Your task to perform on an android device: Clear the cart on walmart. Search for bose soundlink mini on walmart, select the first entry, and add it to the cart. Image 0: 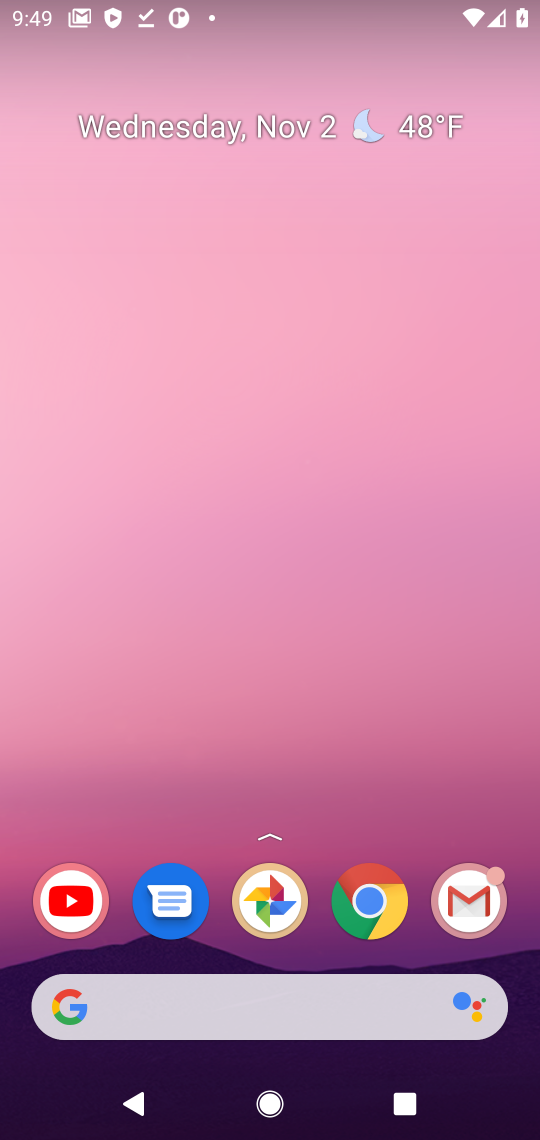
Step 0: click (383, 900)
Your task to perform on an android device: Clear the cart on walmart. Search for bose soundlink mini on walmart, select the first entry, and add it to the cart. Image 1: 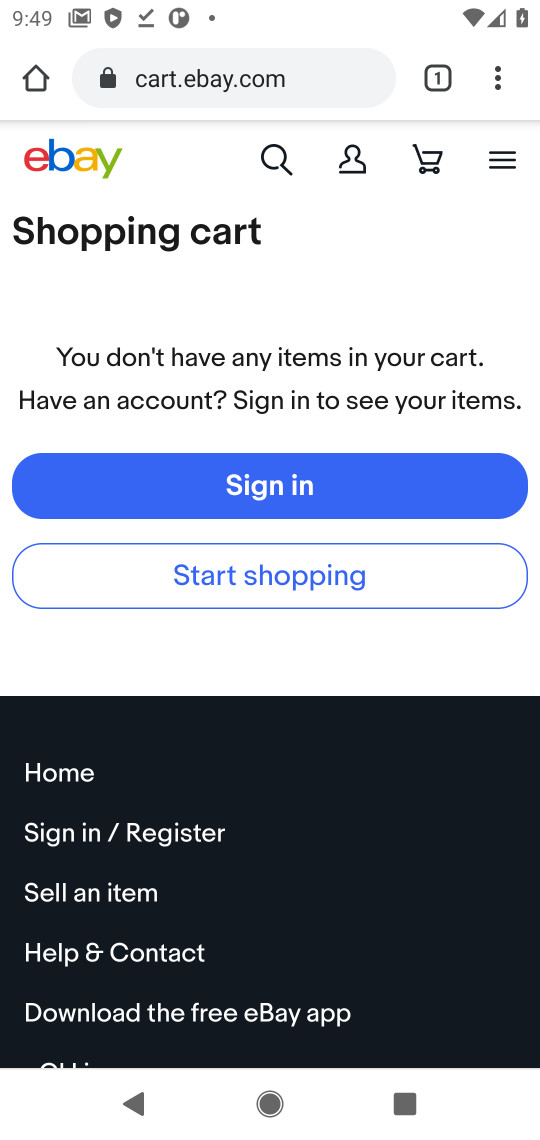
Step 1: click (255, 87)
Your task to perform on an android device: Clear the cart on walmart. Search for bose soundlink mini on walmart, select the first entry, and add it to the cart. Image 2: 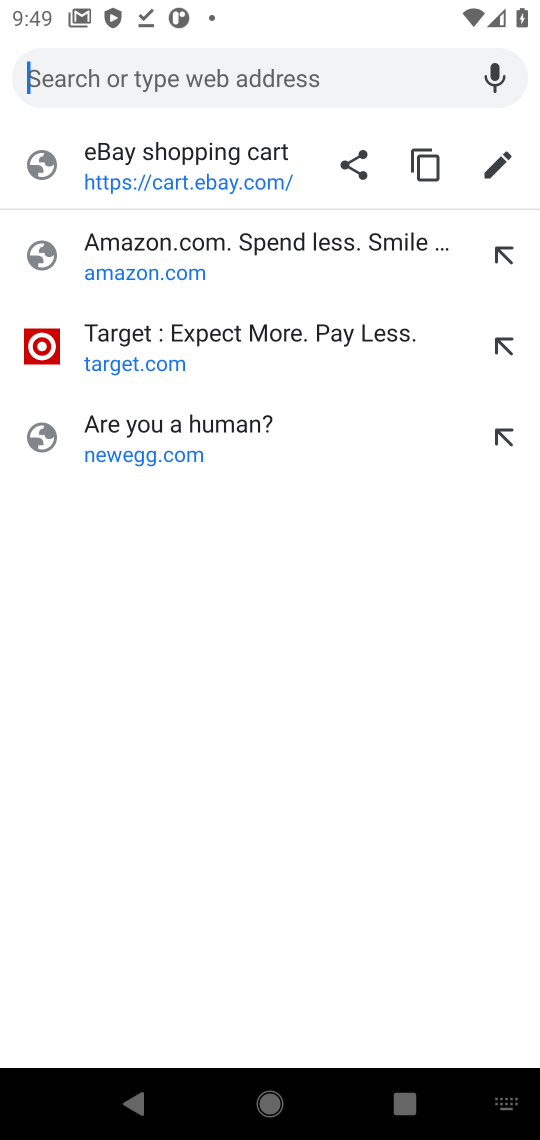
Step 2: type "walmart"
Your task to perform on an android device: Clear the cart on walmart. Search for bose soundlink mini on walmart, select the first entry, and add it to the cart. Image 3: 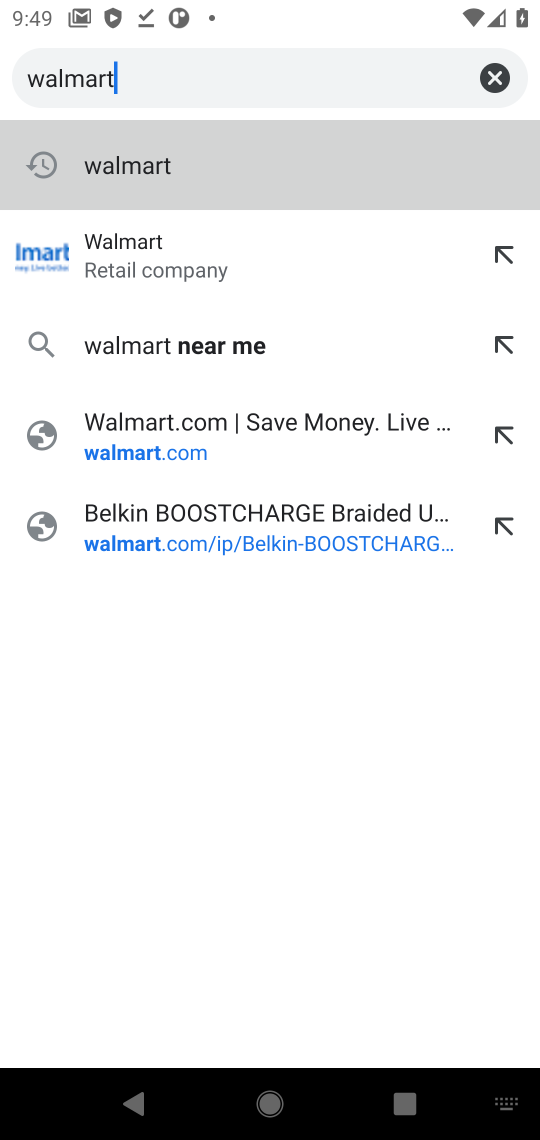
Step 3: click (175, 170)
Your task to perform on an android device: Clear the cart on walmart. Search for bose soundlink mini on walmart, select the first entry, and add it to the cart. Image 4: 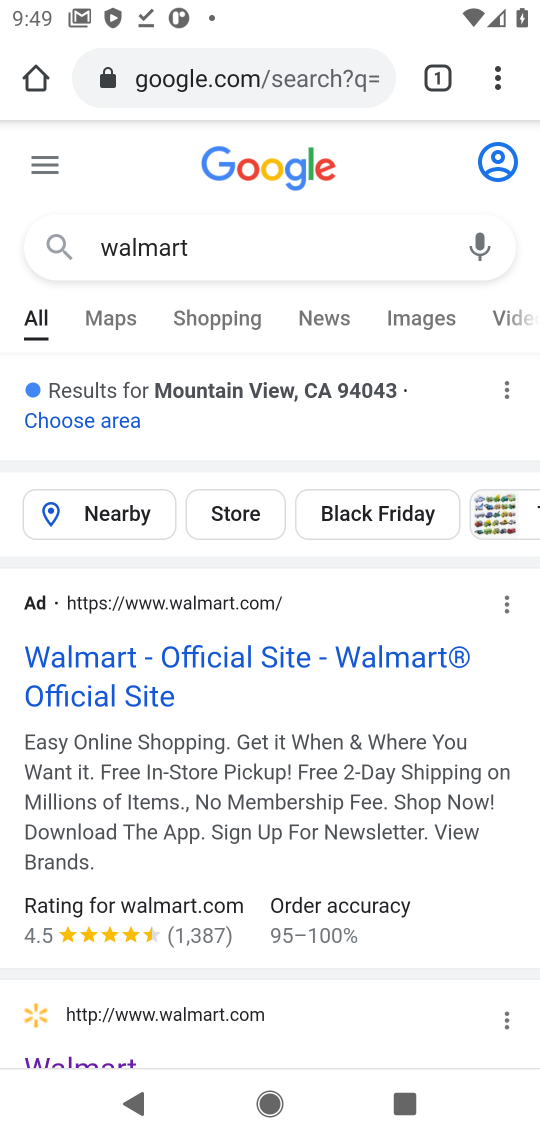
Step 4: drag from (454, 956) to (401, 553)
Your task to perform on an android device: Clear the cart on walmart. Search for bose soundlink mini on walmart, select the first entry, and add it to the cart. Image 5: 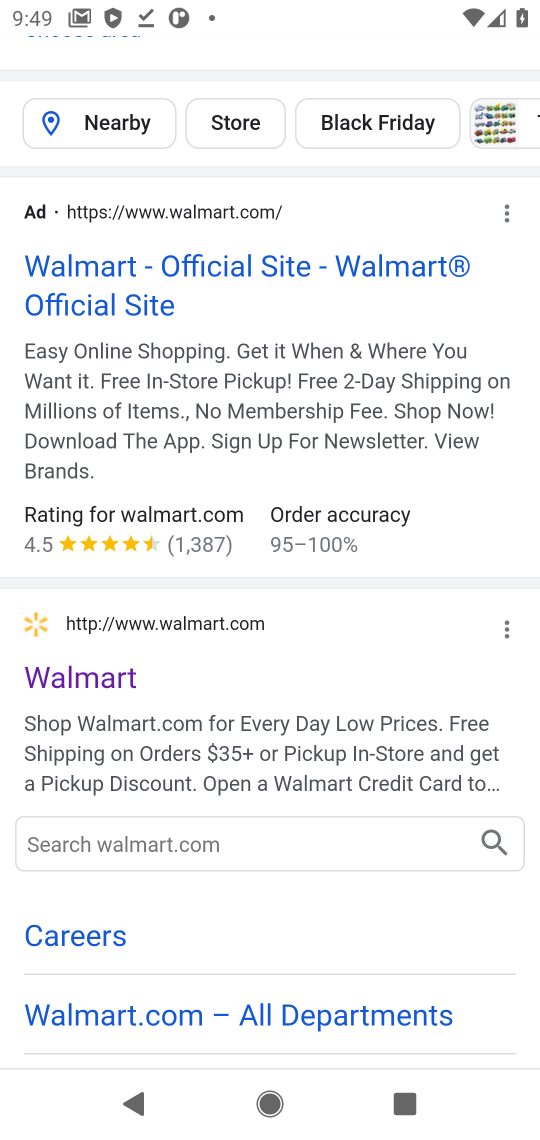
Step 5: click (83, 673)
Your task to perform on an android device: Clear the cart on walmart. Search for bose soundlink mini on walmart, select the first entry, and add it to the cart. Image 6: 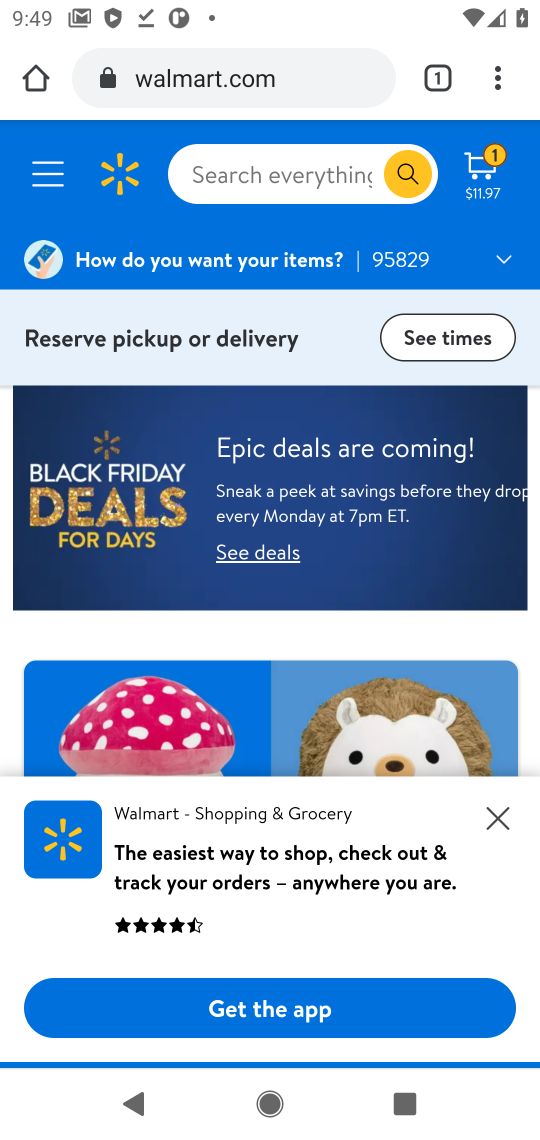
Step 6: click (500, 817)
Your task to perform on an android device: Clear the cart on walmart. Search for bose soundlink mini on walmart, select the first entry, and add it to the cart. Image 7: 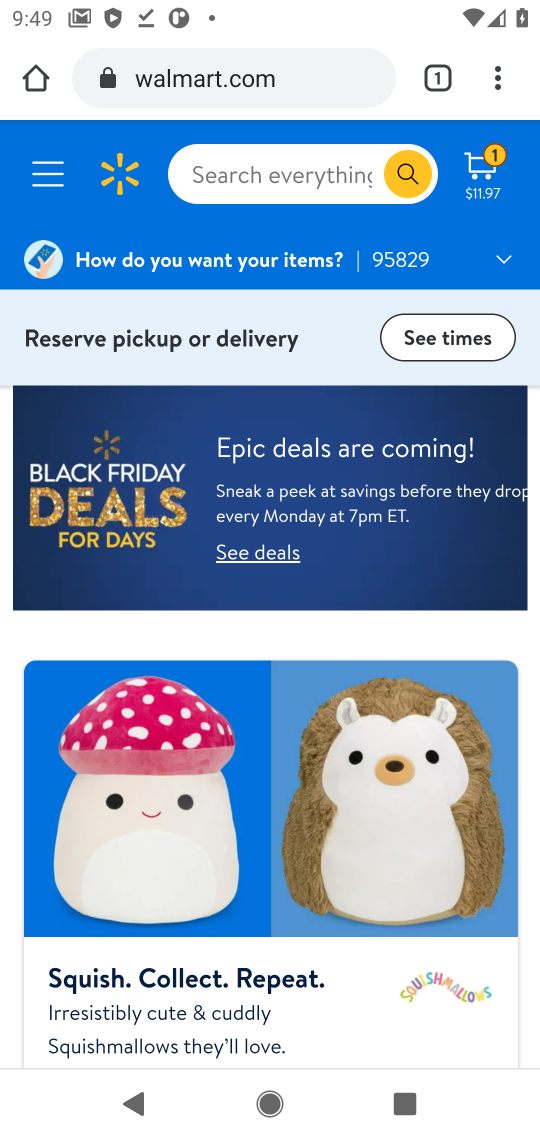
Step 7: drag from (360, 973) to (343, 624)
Your task to perform on an android device: Clear the cart on walmart. Search for bose soundlink mini on walmart, select the first entry, and add it to the cart. Image 8: 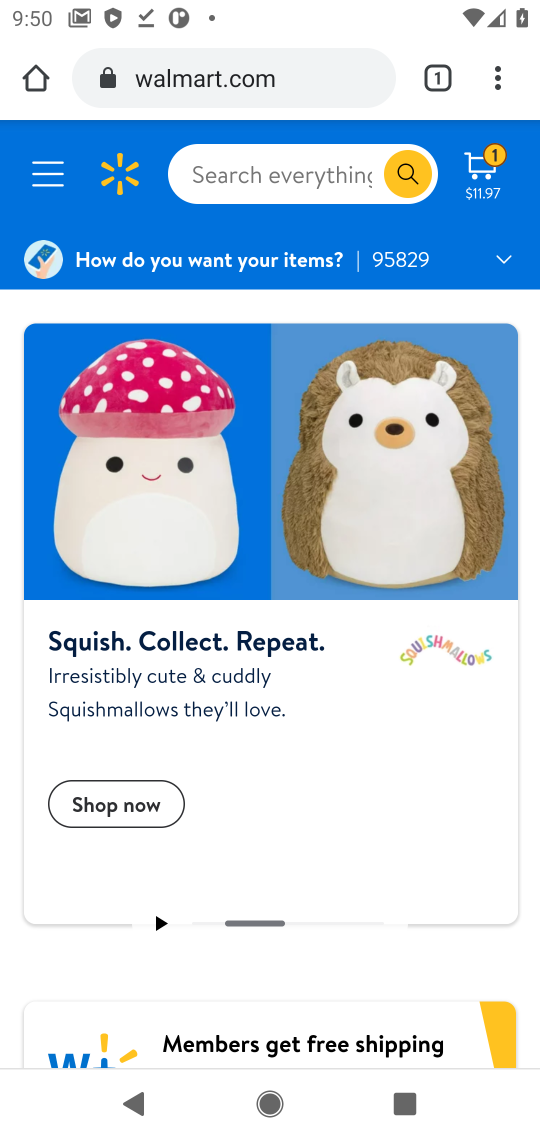
Step 8: click (483, 186)
Your task to perform on an android device: Clear the cart on walmart. Search for bose soundlink mini on walmart, select the first entry, and add it to the cart. Image 9: 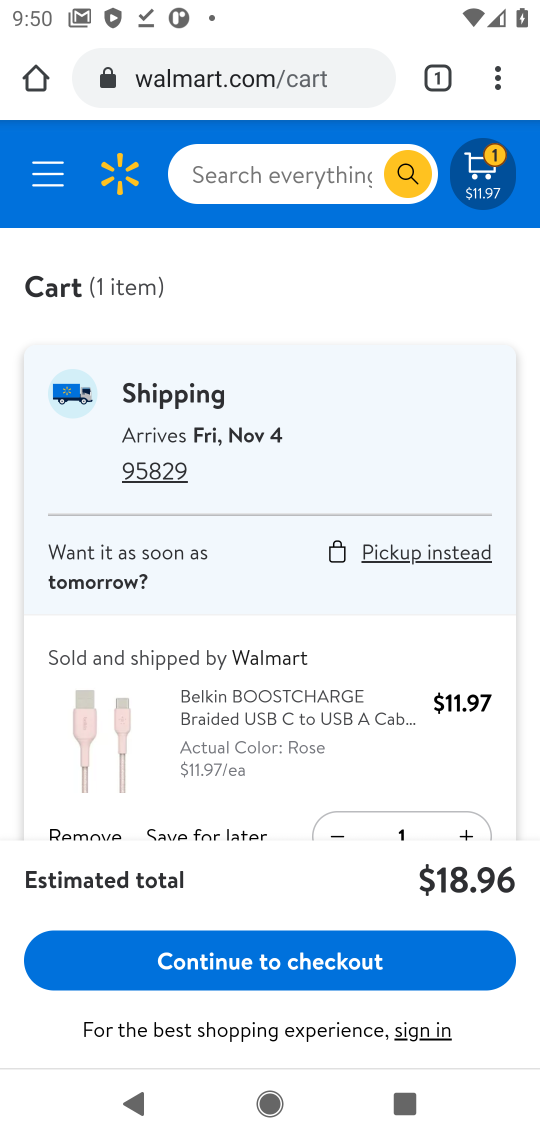
Step 9: drag from (410, 659) to (399, 360)
Your task to perform on an android device: Clear the cart on walmart. Search for bose soundlink mini on walmart, select the first entry, and add it to the cart. Image 10: 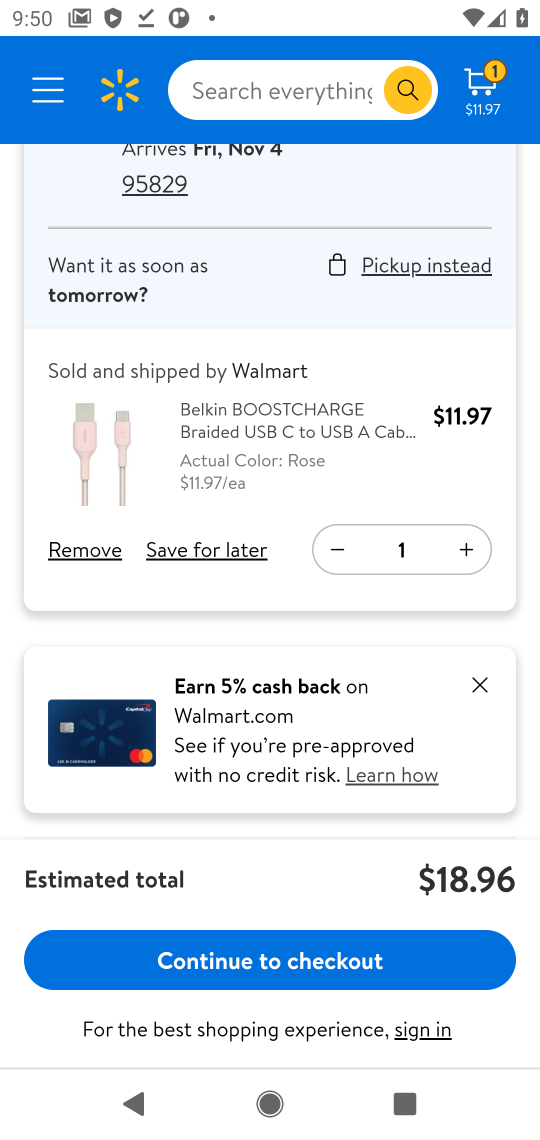
Step 10: click (74, 550)
Your task to perform on an android device: Clear the cart on walmart. Search for bose soundlink mini on walmart, select the first entry, and add it to the cart. Image 11: 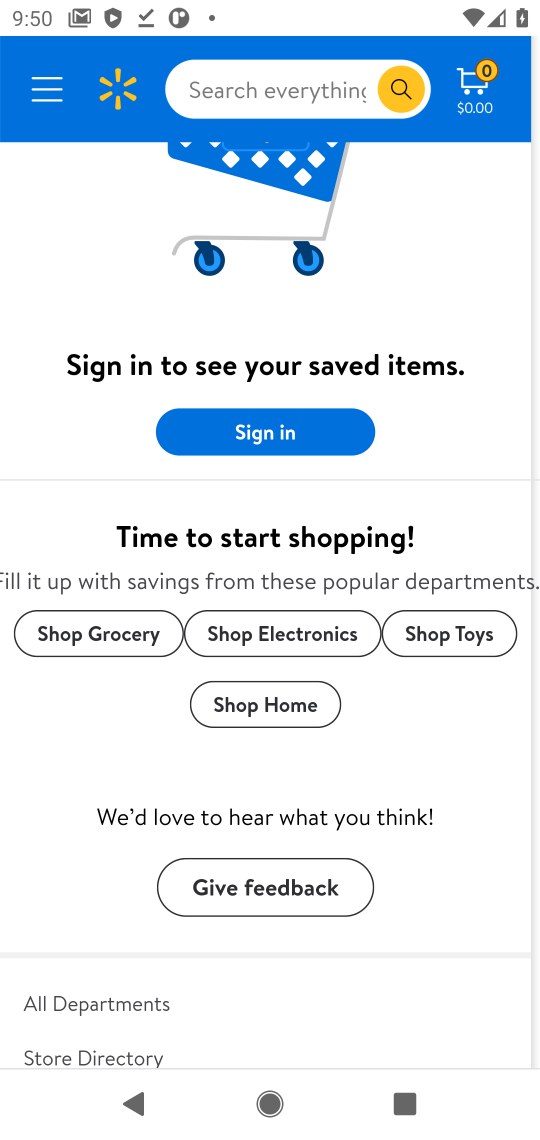
Step 11: click (313, 85)
Your task to perform on an android device: Clear the cart on walmart. Search for bose soundlink mini on walmart, select the first entry, and add it to the cart. Image 12: 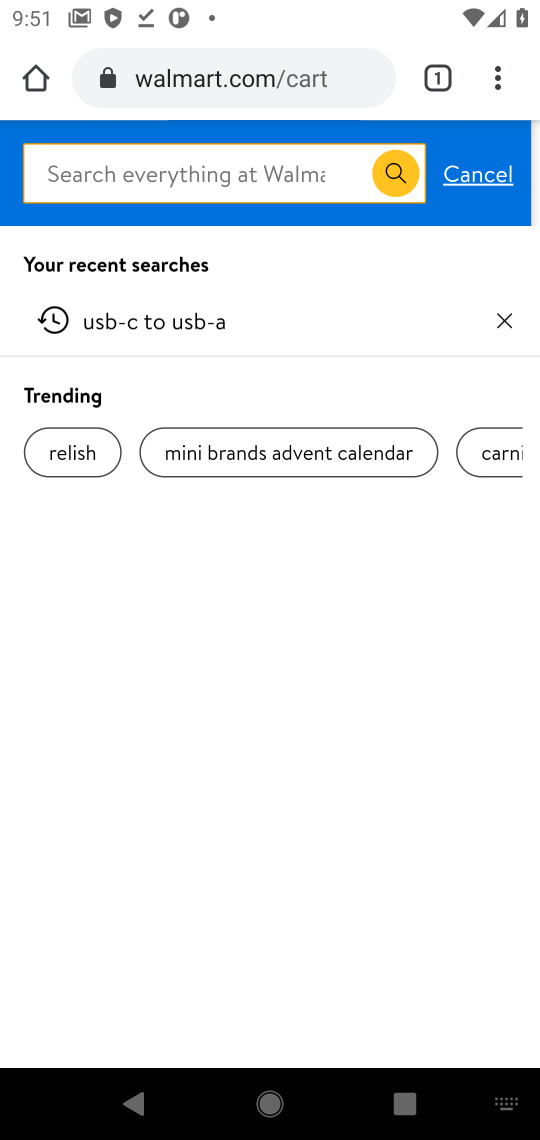
Step 12: type "bose soundlink mini"
Your task to perform on an android device: Clear the cart on walmart. Search for bose soundlink mini on walmart, select the first entry, and add it to the cart. Image 13: 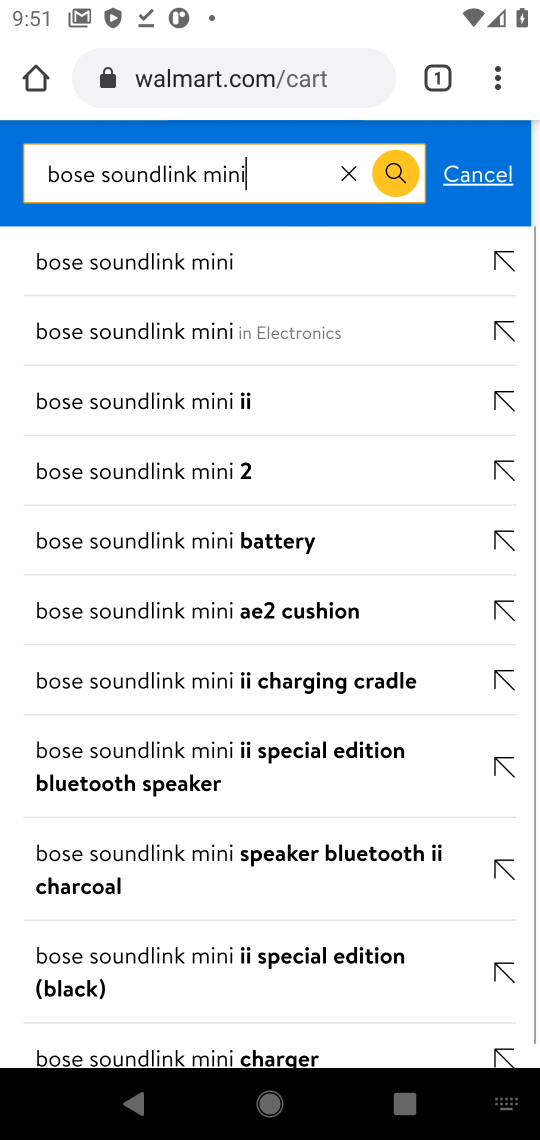
Step 13: click (399, 174)
Your task to perform on an android device: Clear the cart on walmart. Search for bose soundlink mini on walmart, select the first entry, and add it to the cart. Image 14: 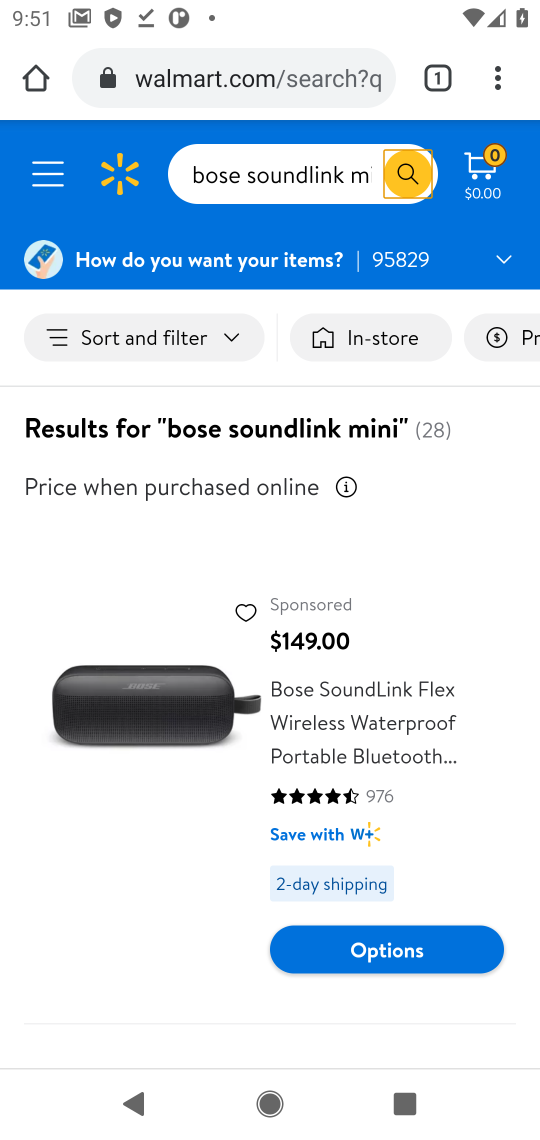
Step 14: click (186, 714)
Your task to perform on an android device: Clear the cart on walmart. Search for bose soundlink mini on walmart, select the first entry, and add it to the cart. Image 15: 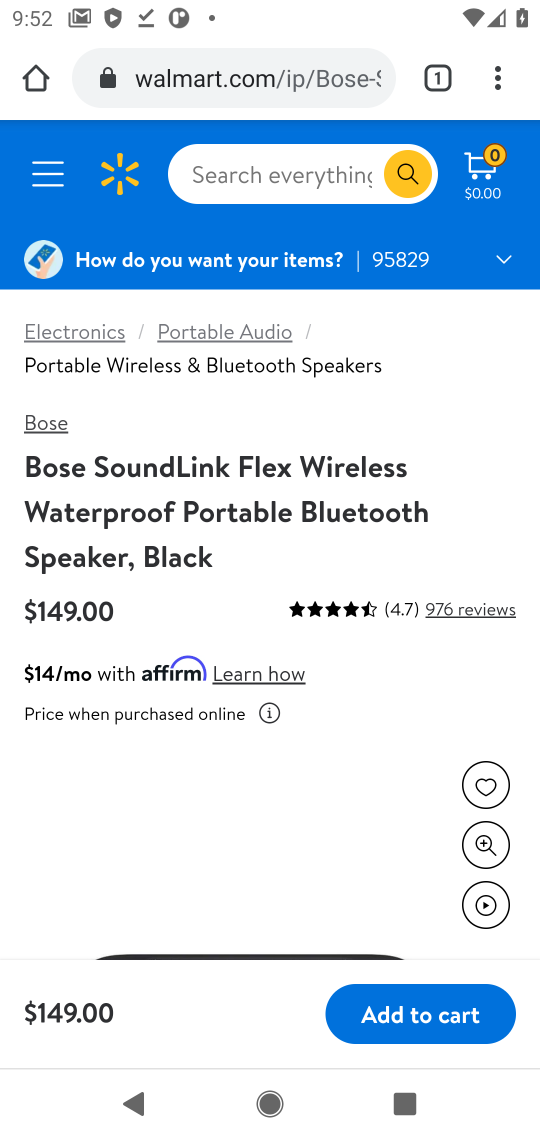
Step 15: drag from (237, 597) to (254, 141)
Your task to perform on an android device: Clear the cart on walmart. Search for bose soundlink mini on walmart, select the first entry, and add it to the cart. Image 16: 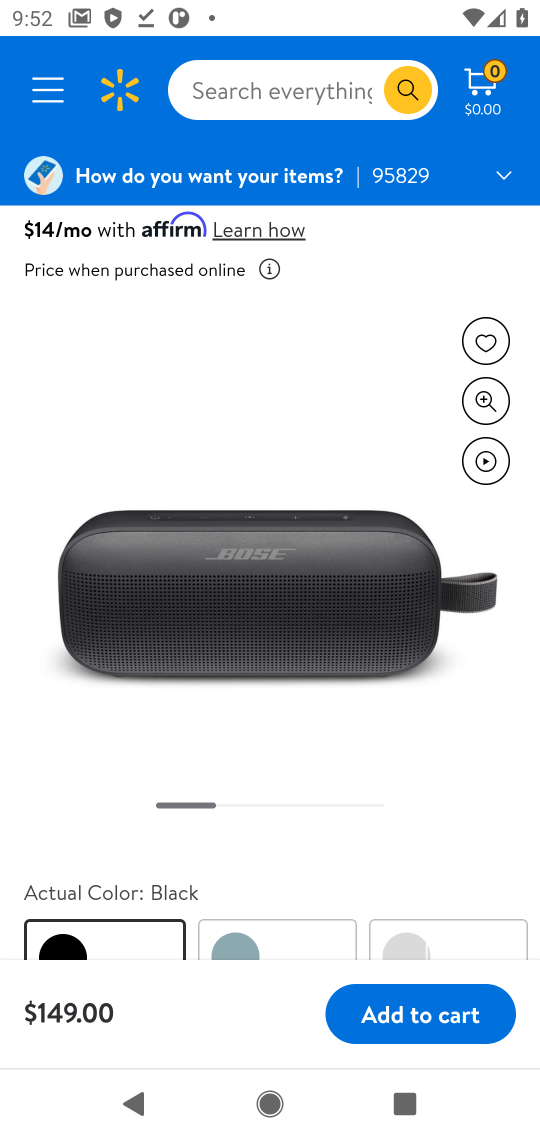
Step 16: click (438, 1023)
Your task to perform on an android device: Clear the cart on walmart. Search for bose soundlink mini on walmart, select the first entry, and add it to the cart. Image 17: 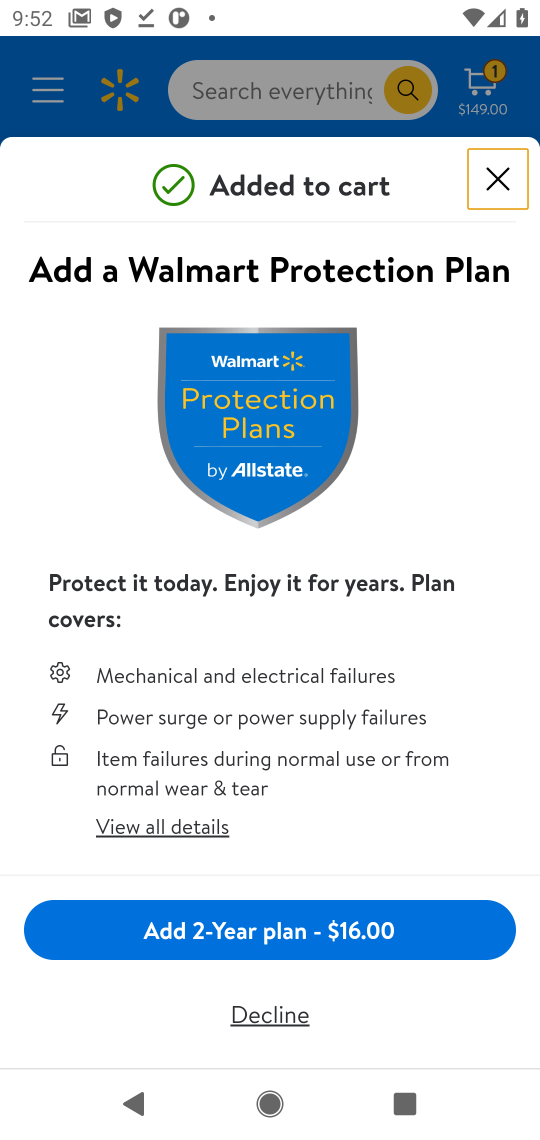
Step 17: click (503, 181)
Your task to perform on an android device: Clear the cart on walmart. Search for bose soundlink mini on walmart, select the first entry, and add it to the cart. Image 18: 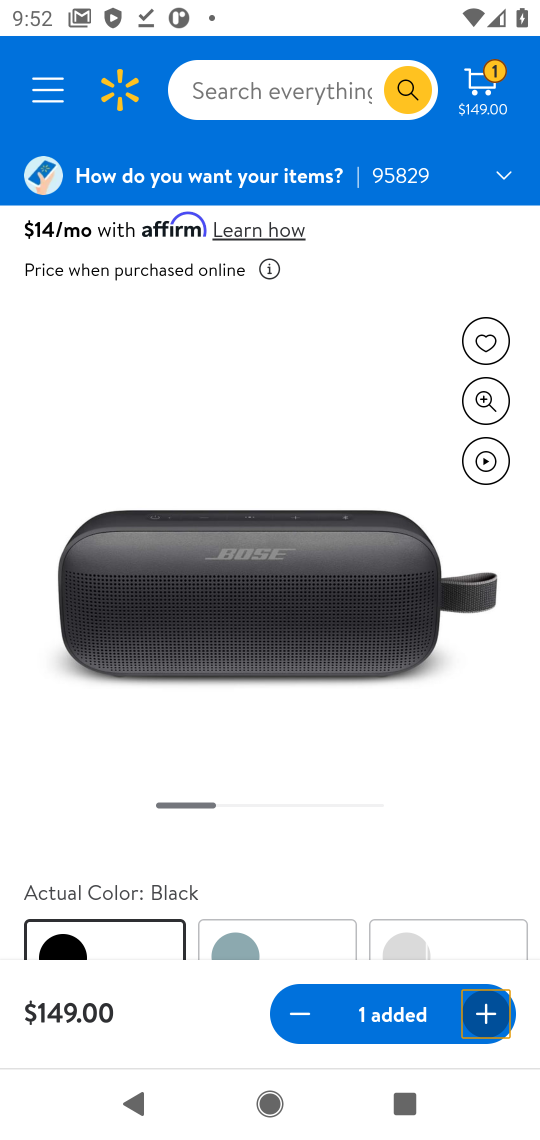
Step 18: task complete